Your task to perform on an android device: Go to Reddit.com Image 0: 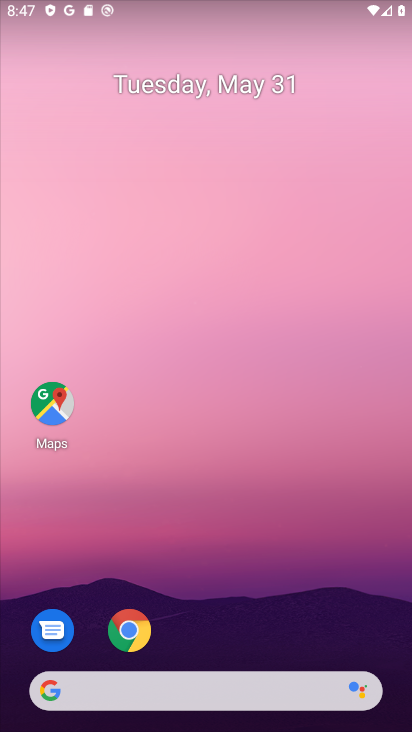
Step 0: click (146, 635)
Your task to perform on an android device: Go to Reddit.com Image 1: 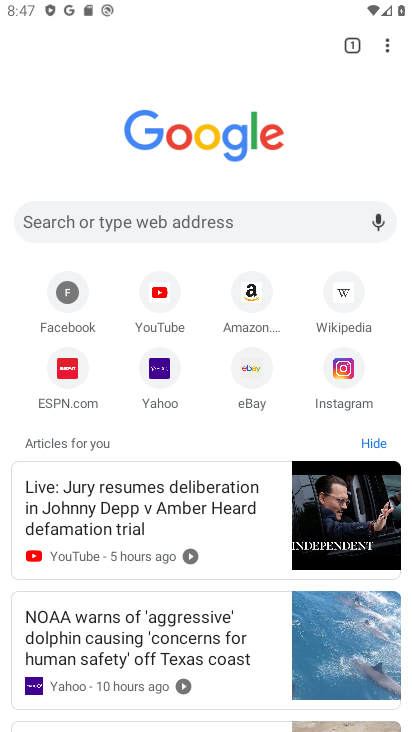
Step 1: click (160, 232)
Your task to perform on an android device: Go to Reddit.com Image 2: 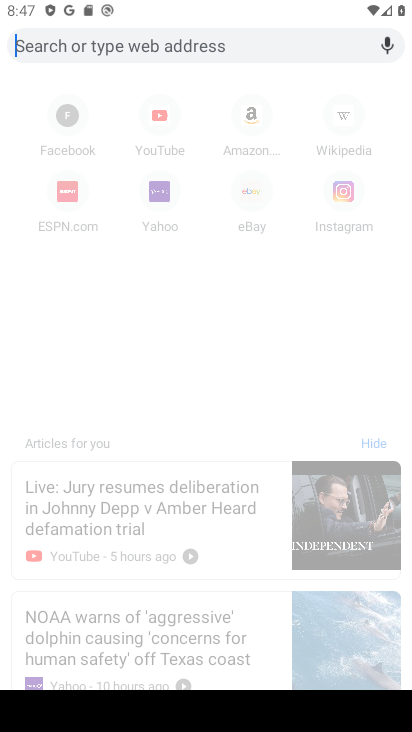
Step 2: type "reddit"
Your task to perform on an android device: Go to Reddit.com Image 3: 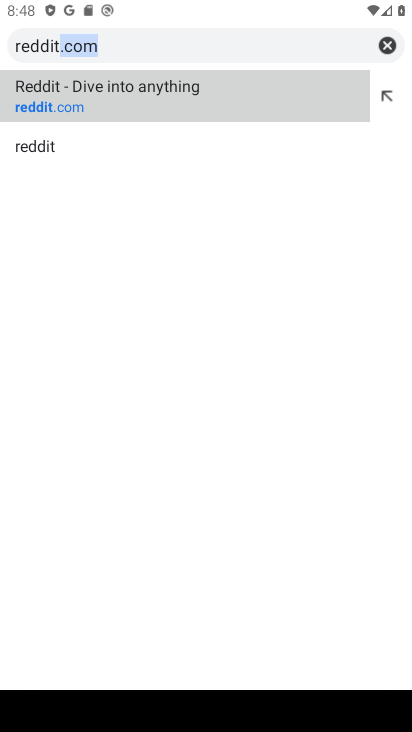
Step 3: click (239, 92)
Your task to perform on an android device: Go to Reddit.com Image 4: 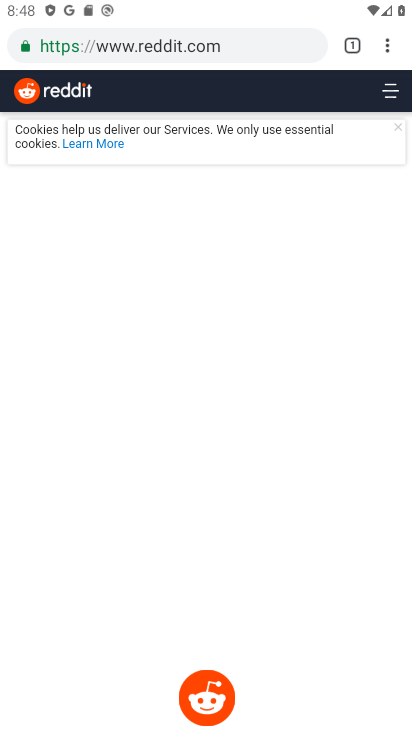
Step 4: task complete